Your task to perform on an android device: delete a single message in the gmail app Image 0: 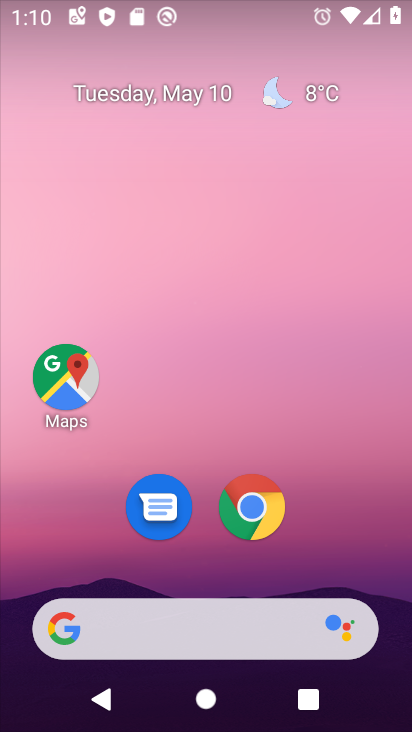
Step 0: drag from (224, 722) to (225, 250)
Your task to perform on an android device: delete a single message in the gmail app Image 1: 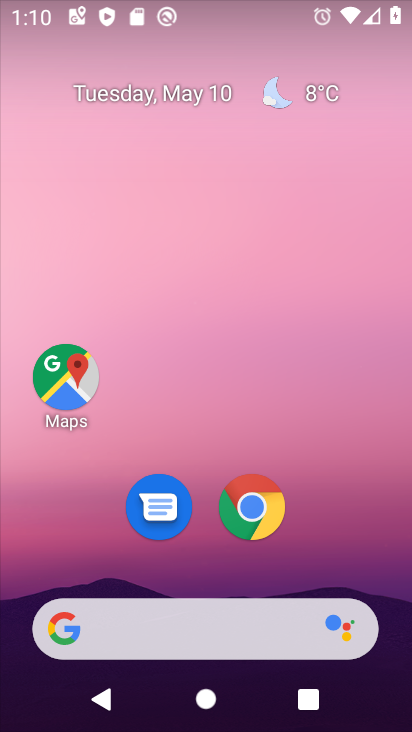
Step 1: drag from (219, 729) to (214, 275)
Your task to perform on an android device: delete a single message in the gmail app Image 2: 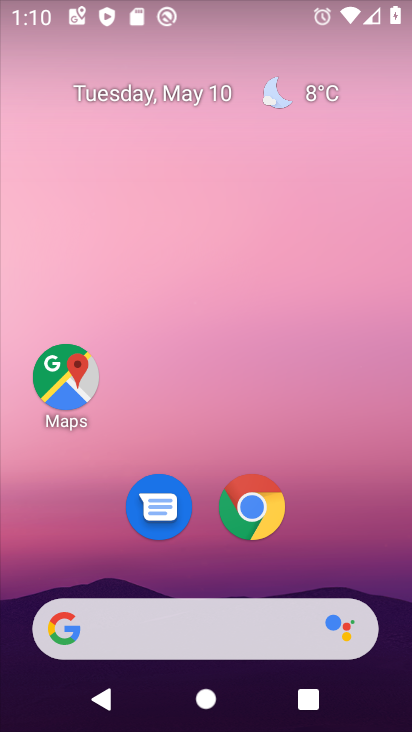
Step 2: drag from (228, 721) to (235, 144)
Your task to perform on an android device: delete a single message in the gmail app Image 3: 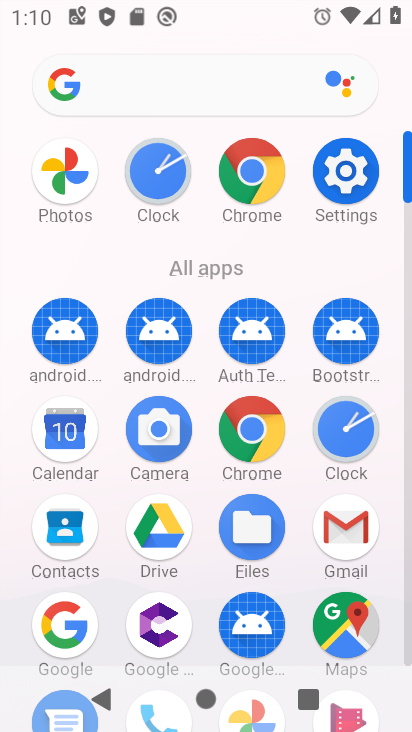
Step 3: click (340, 511)
Your task to perform on an android device: delete a single message in the gmail app Image 4: 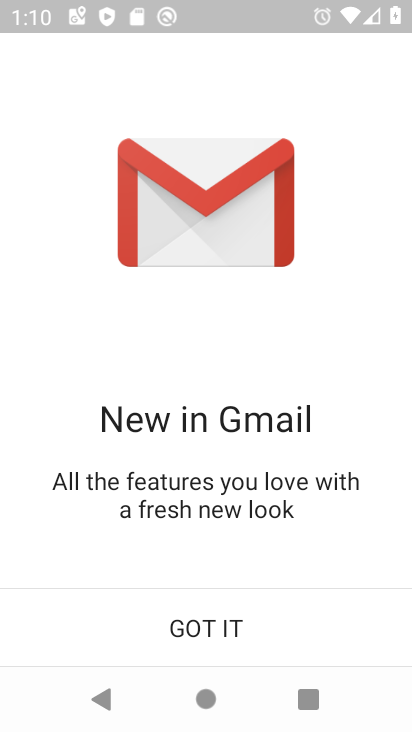
Step 4: click (184, 637)
Your task to perform on an android device: delete a single message in the gmail app Image 5: 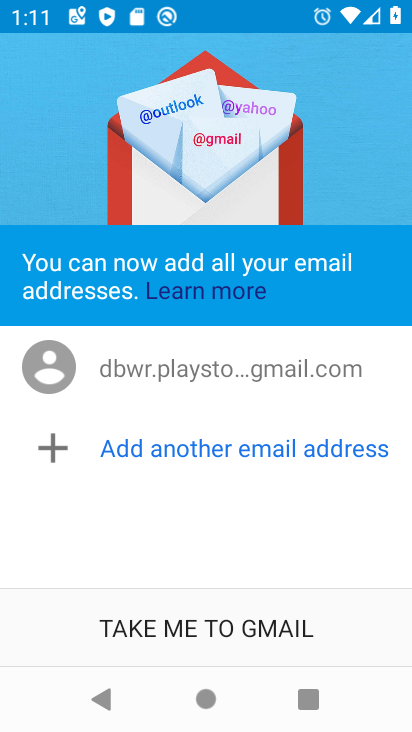
Step 5: click (184, 637)
Your task to perform on an android device: delete a single message in the gmail app Image 6: 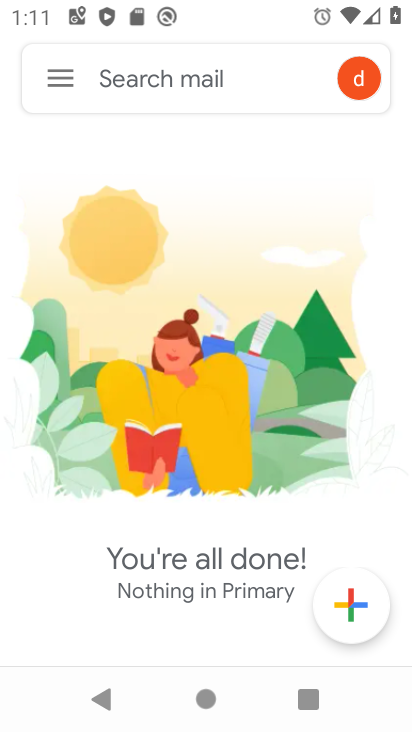
Step 6: task complete